Your task to perform on an android device: Go to Android settings Image 0: 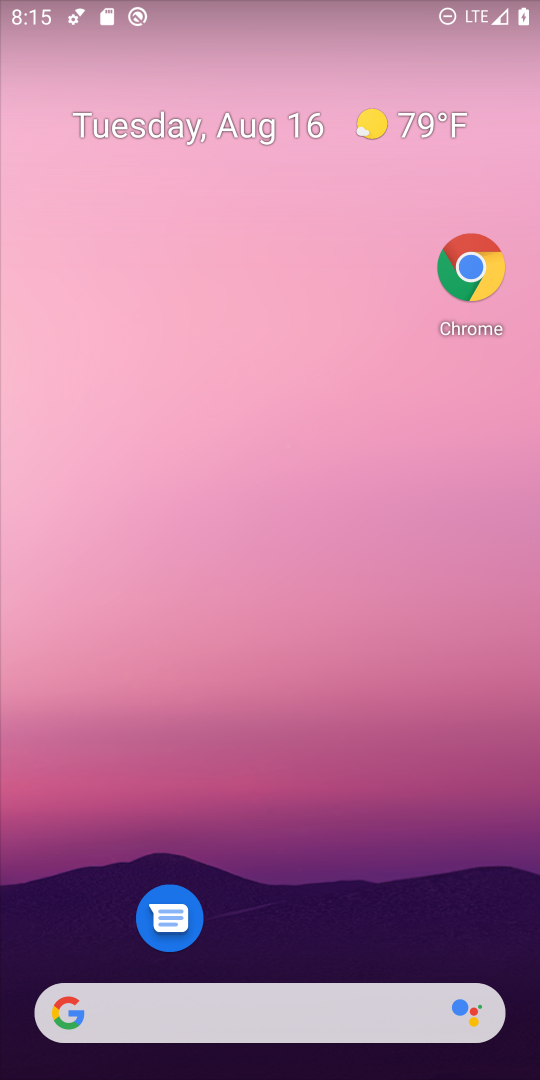
Step 0: drag from (339, 931) to (419, 0)
Your task to perform on an android device: Go to Android settings Image 1: 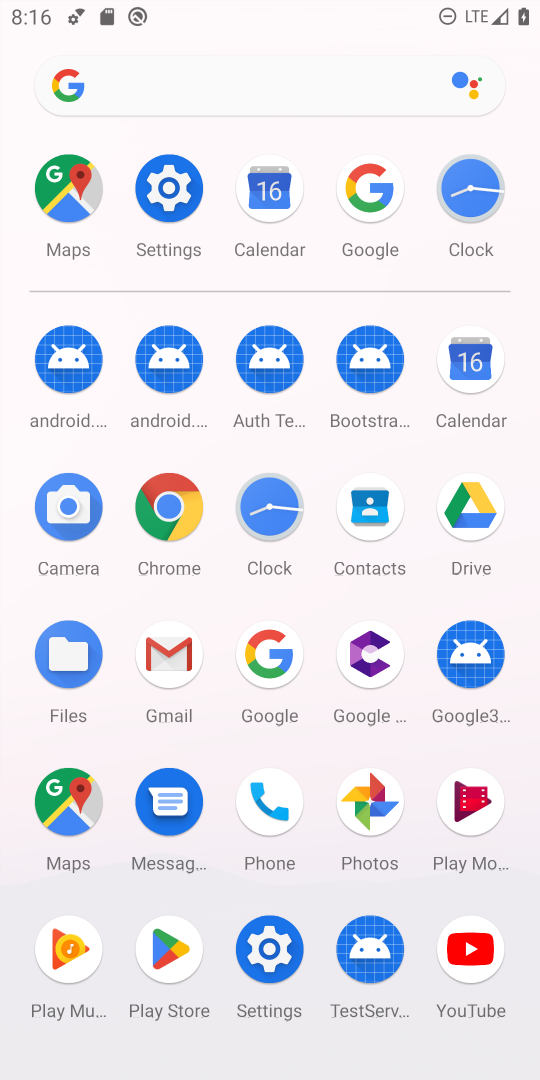
Step 1: click (174, 215)
Your task to perform on an android device: Go to Android settings Image 2: 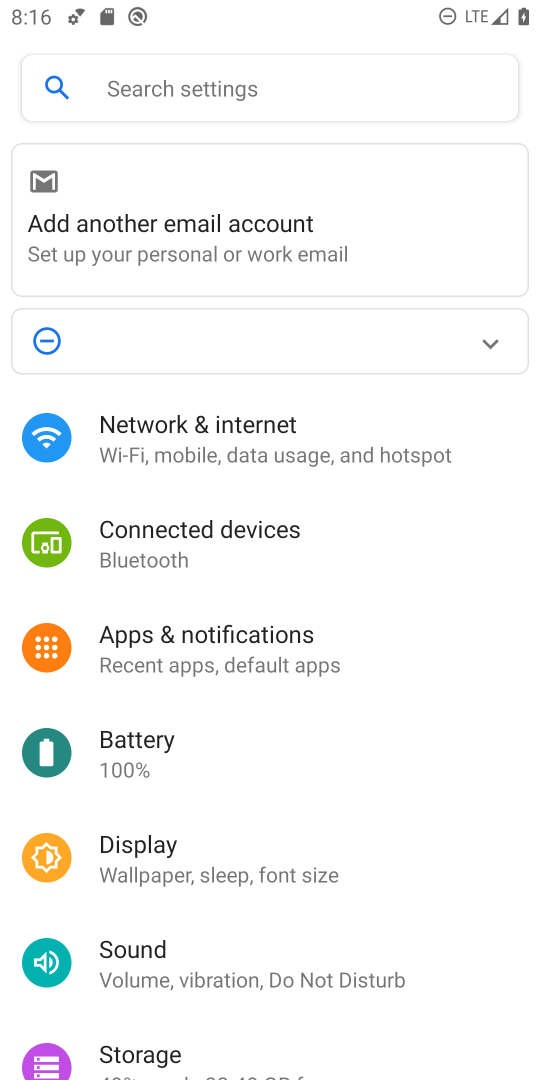
Step 2: drag from (272, 846) to (216, 345)
Your task to perform on an android device: Go to Android settings Image 3: 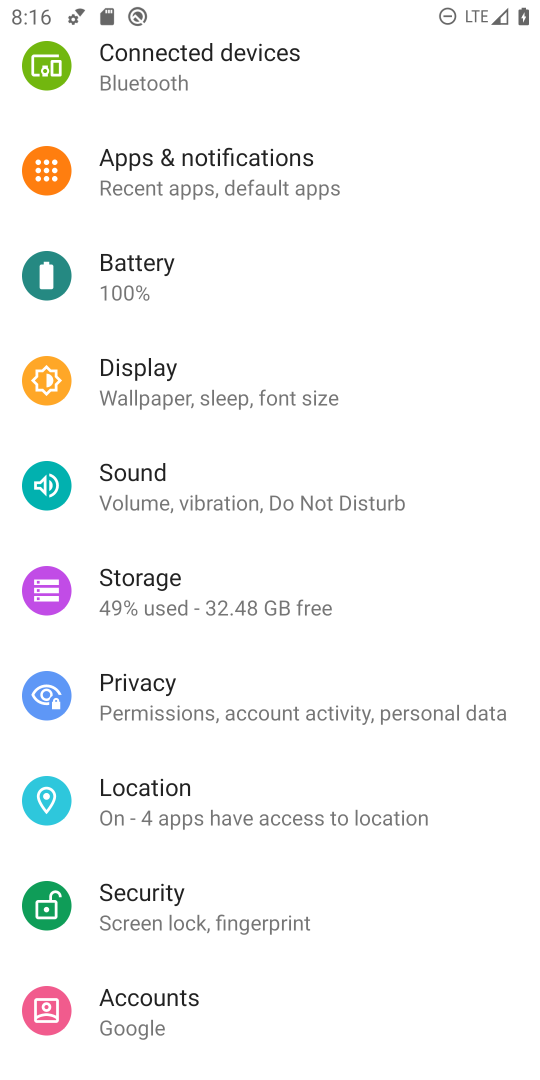
Step 3: drag from (223, 842) to (188, 307)
Your task to perform on an android device: Go to Android settings Image 4: 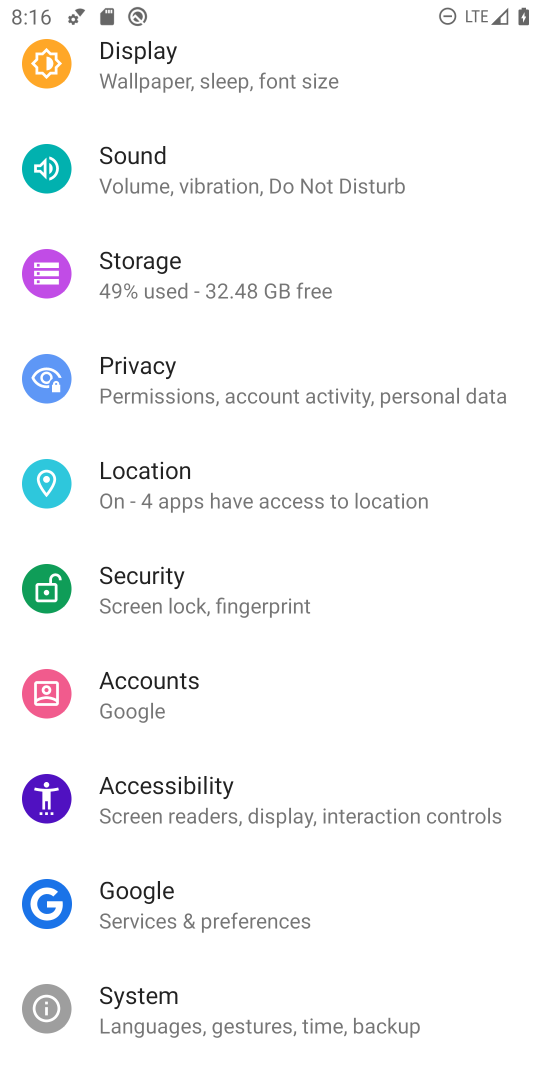
Step 4: drag from (281, 945) to (264, 456)
Your task to perform on an android device: Go to Android settings Image 5: 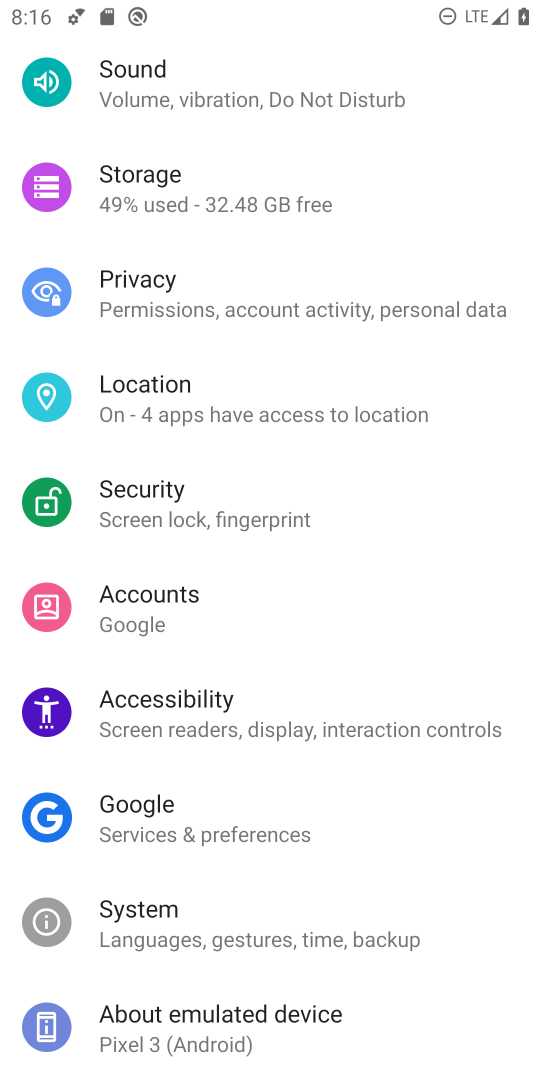
Step 5: click (223, 1019)
Your task to perform on an android device: Go to Android settings Image 6: 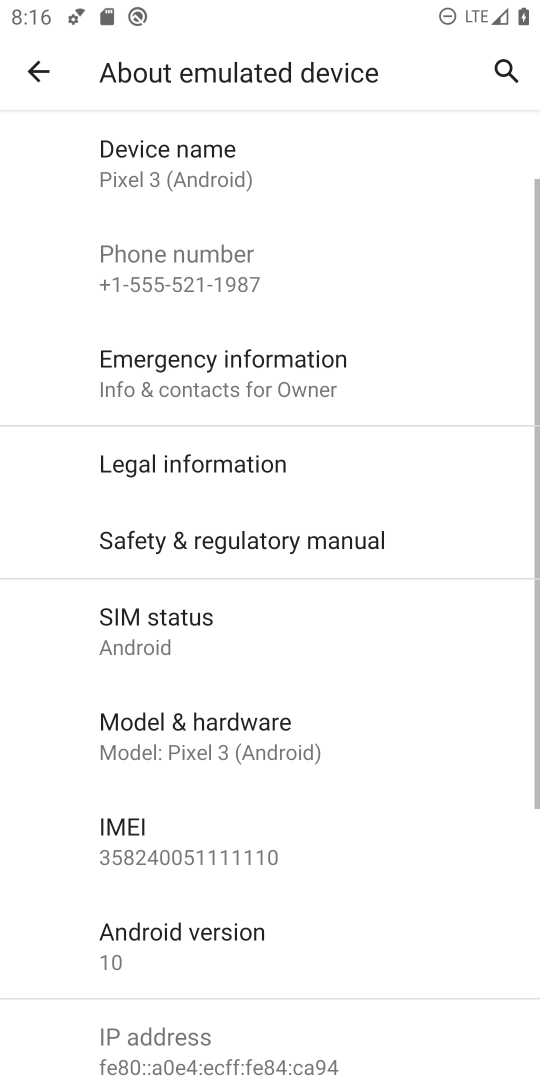
Step 6: click (223, 949)
Your task to perform on an android device: Go to Android settings Image 7: 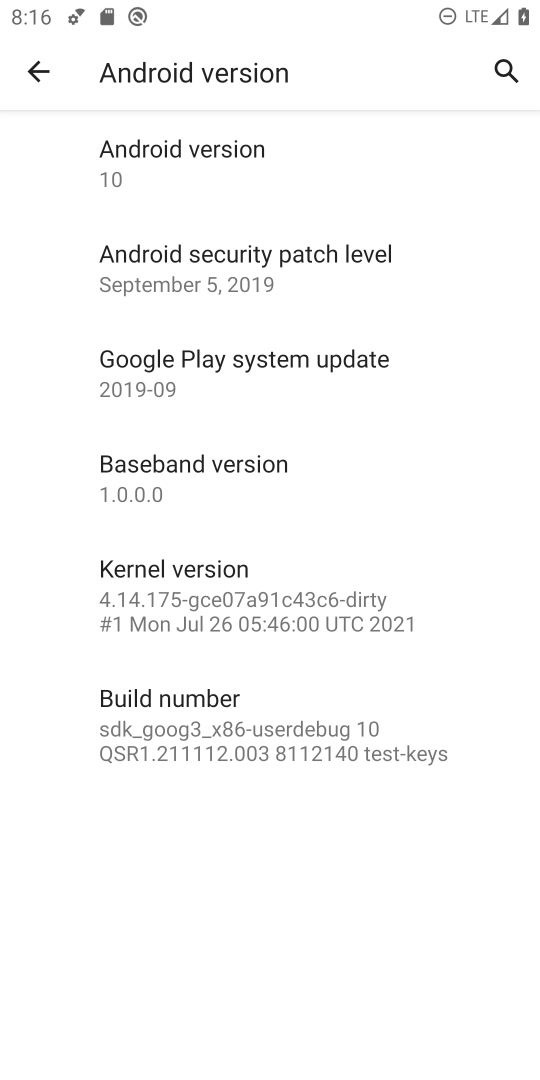
Step 7: task complete